Your task to perform on an android device: toggle notification dots Image 0: 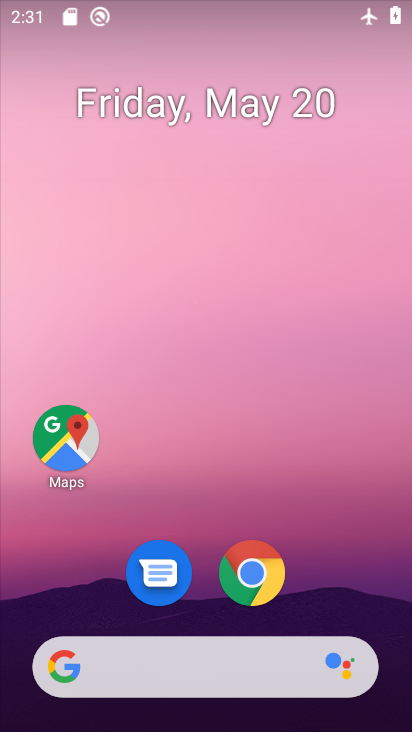
Step 0: drag from (202, 613) to (211, 180)
Your task to perform on an android device: toggle notification dots Image 1: 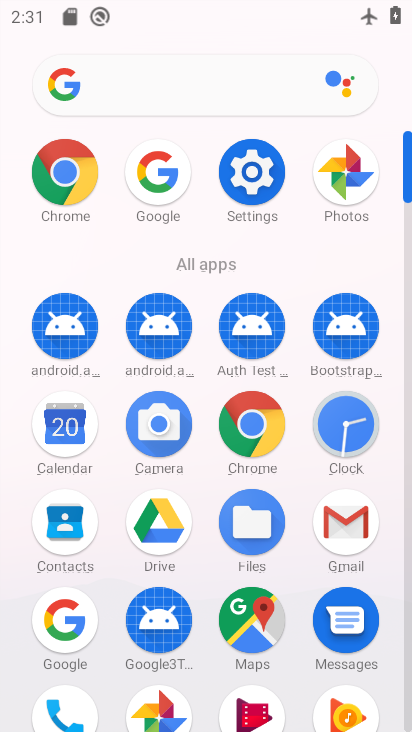
Step 1: click (238, 166)
Your task to perform on an android device: toggle notification dots Image 2: 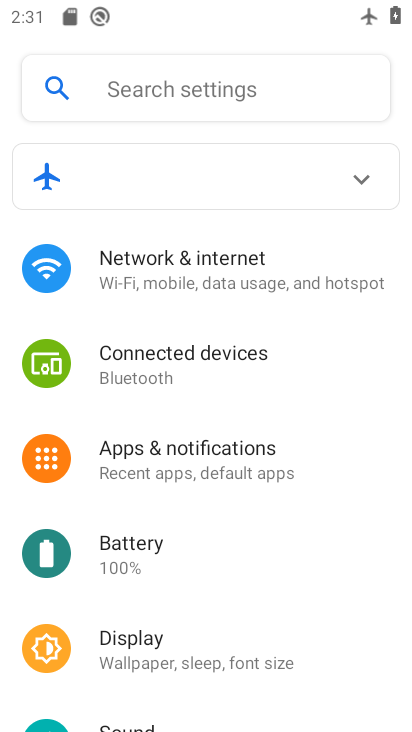
Step 2: click (227, 457)
Your task to perform on an android device: toggle notification dots Image 3: 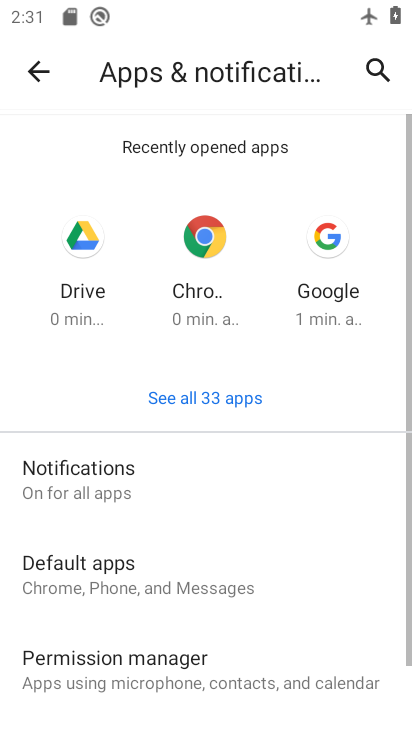
Step 3: drag from (252, 573) to (253, 399)
Your task to perform on an android device: toggle notification dots Image 4: 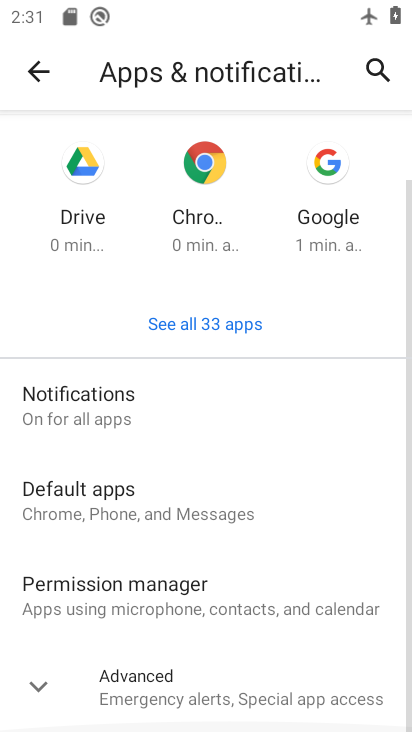
Step 4: drag from (222, 527) to (247, 382)
Your task to perform on an android device: toggle notification dots Image 5: 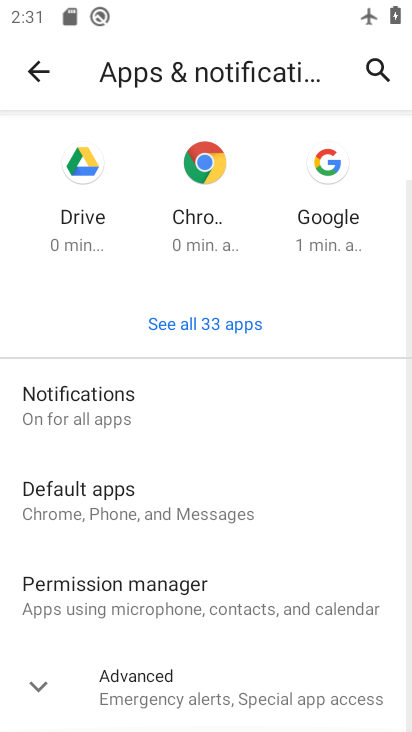
Step 5: drag from (127, 473) to (184, 357)
Your task to perform on an android device: toggle notification dots Image 6: 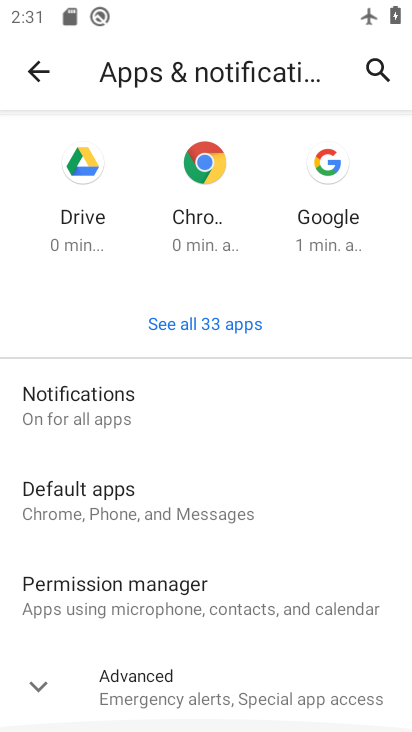
Step 6: click (120, 407)
Your task to perform on an android device: toggle notification dots Image 7: 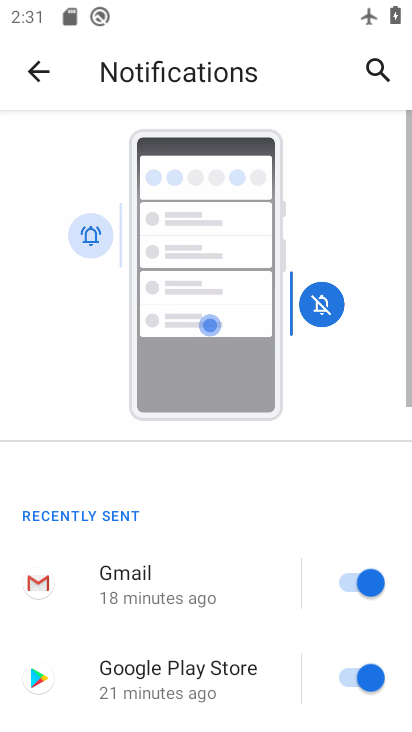
Step 7: drag from (233, 579) to (252, 314)
Your task to perform on an android device: toggle notification dots Image 8: 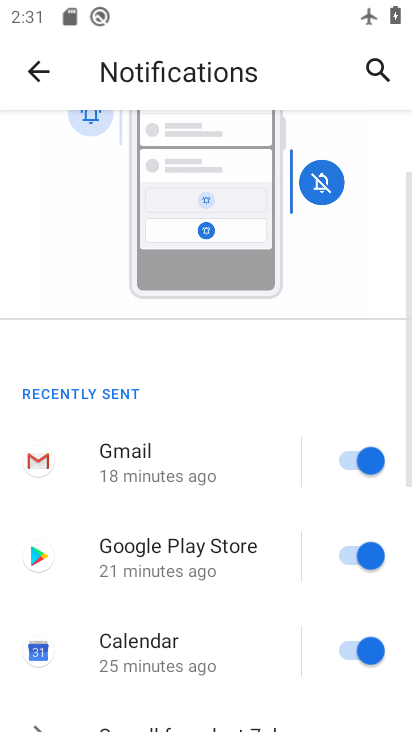
Step 8: drag from (229, 585) to (262, 338)
Your task to perform on an android device: toggle notification dots Image 9: 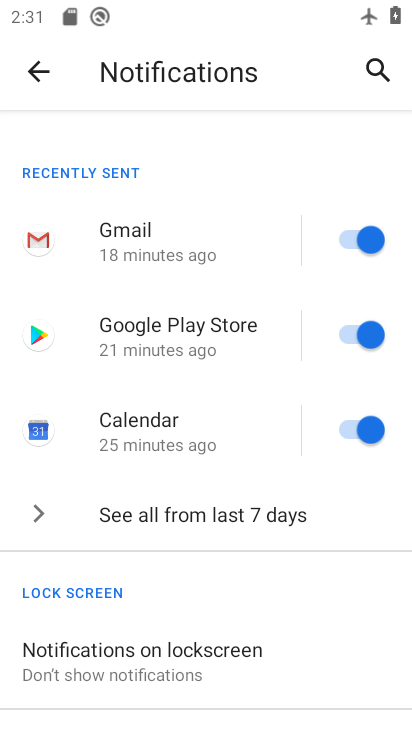
Step 9: drag from (262, 569) to (282, 337)
Your task to perform on an android device: toggle notification dots Image 10: 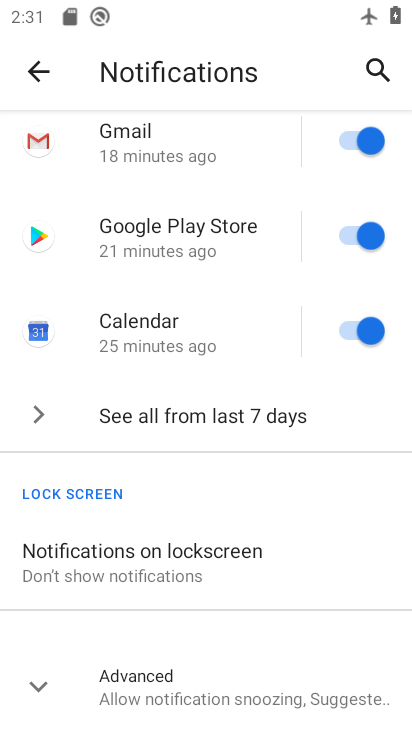
Step 10: click (226, 664)
Your task to perform on an android device: toggle notification dots Image 11: 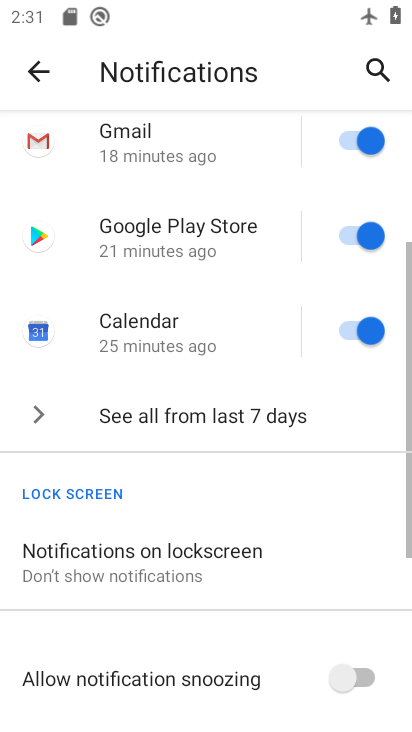
Step 11: click (227, 295)
Your task to perform on an android device: toggle notification dots Image 12: 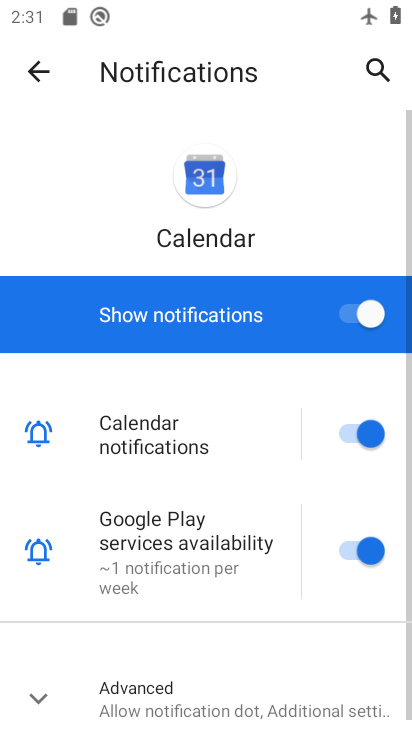
Step 12: click (36, 79)
Your task to perform on an android device: toggle notification dots Image 13: 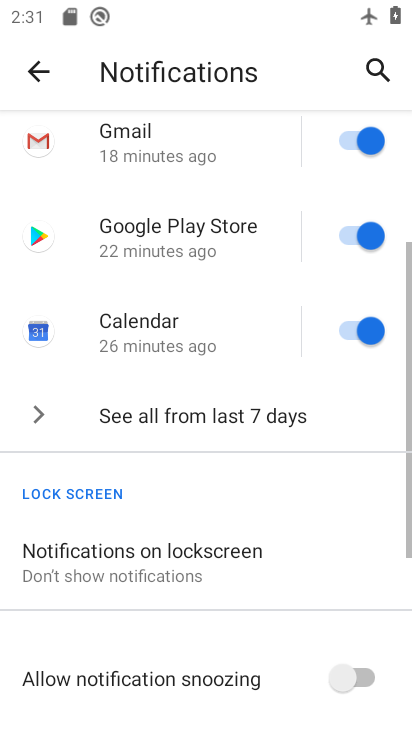
Step 13: drag from (221, 324) to (252, 248)
Your task to perform on an android device: toggle notification dots Image 14: 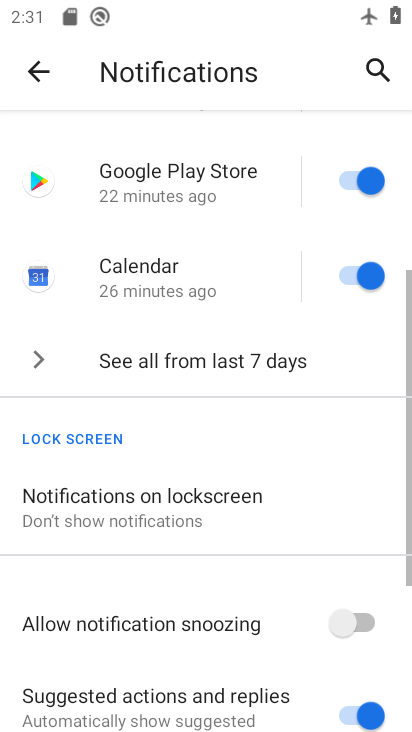
Step 14: drag from (275, 553) to (315, 264)
Your task to perform on an android device: toggle notification dots Image 15: 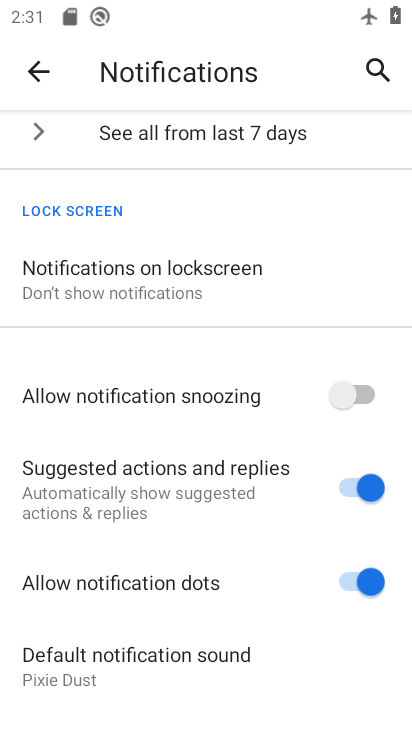
Step 15: click (345, 573)
Your task to perform on an android device: toggle notification dots Image 16: 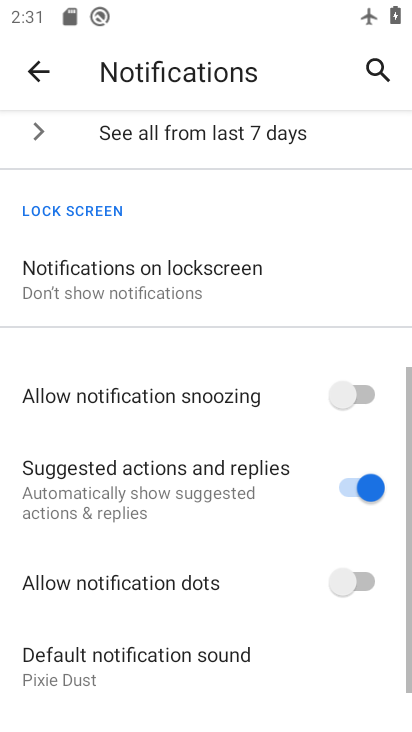
Step 16: task complete